Your task to perform on an android device: turn on data saver in the chrome app Image 0: 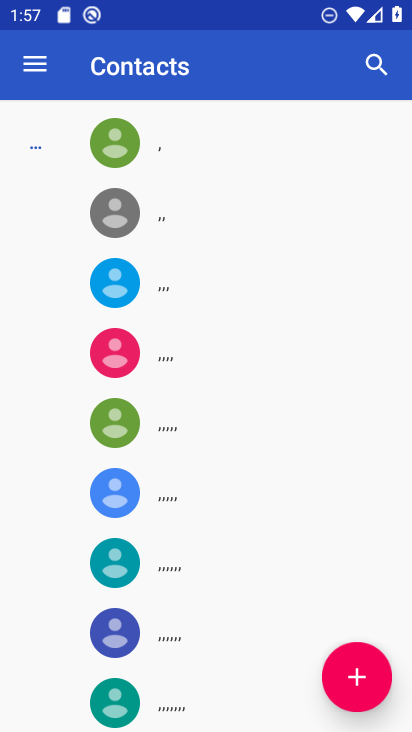
Step 0: press home button
Your task to perform on an android device: turn on data saver in the chrome app Image 1: 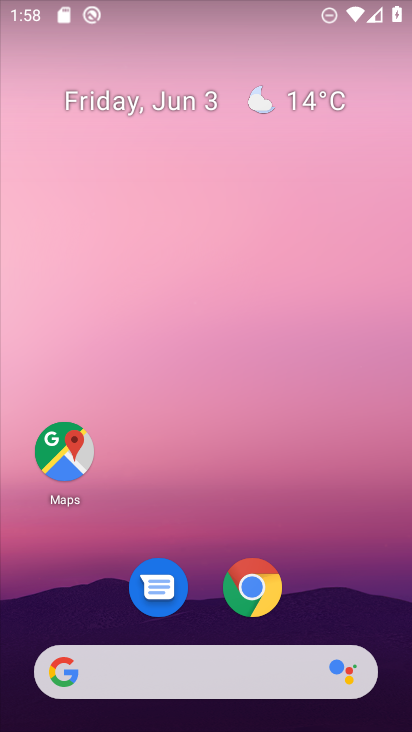
Step 1: click (256, 577)
Your task to perform on an android device: turn on data saver in the chrome app Image 2: 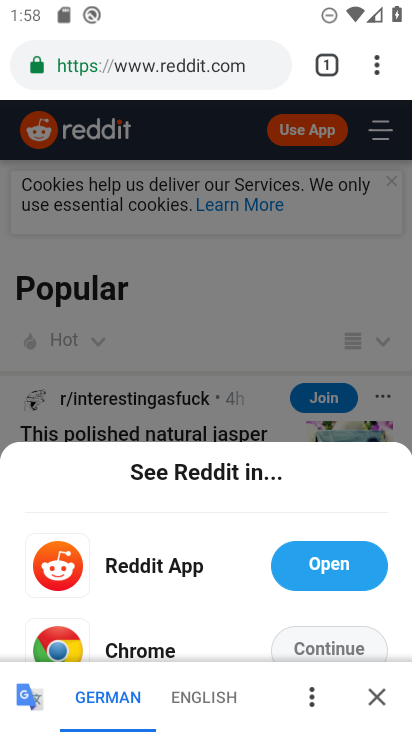
Step 2: click (367, 67)
Your task to perform on an android device: turn on data saver in the chrome app Image 3: 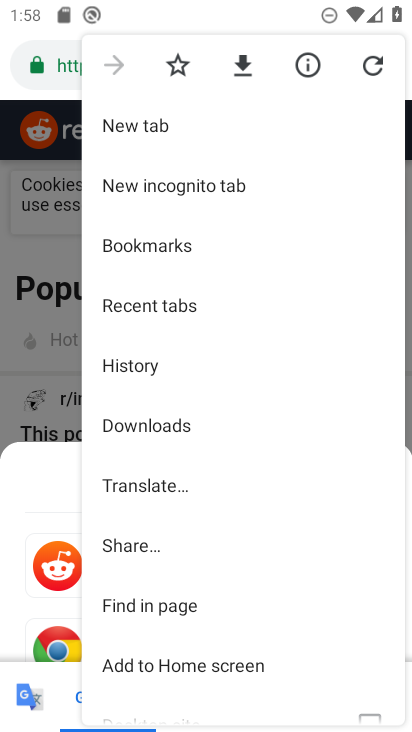
Step 3: drag from (209, 614) to (167, 91)
Your task to perform on an android device: turn on data saver in the chrome app Image 4: 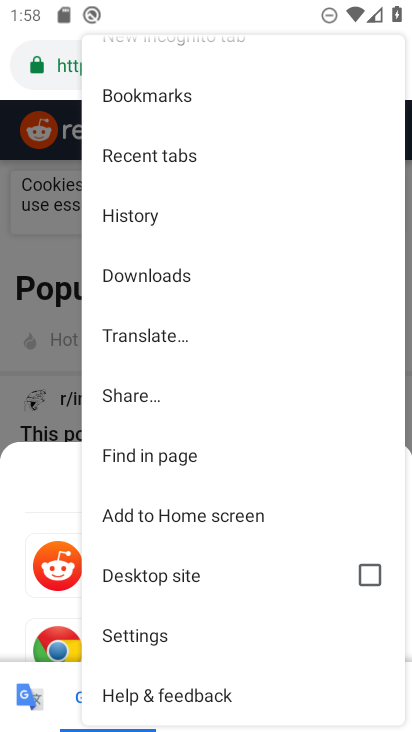
Step 4: click (172, 618)
Your task to perform on an android device: turn on data saver in the chrome app Image 5: 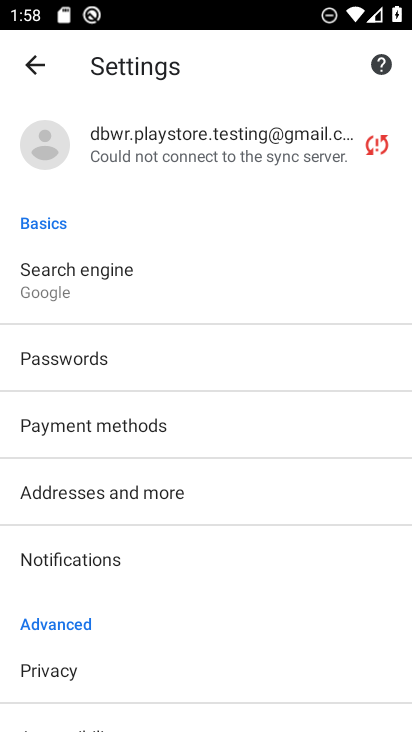
Step 5: drag from (182, 584) to (207, 63)
Your task to perform on an android device: turn on data saver in the chrome app Image 6: 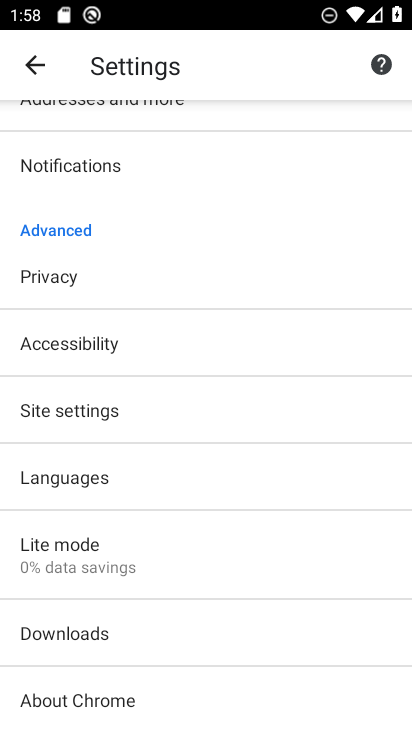
Step 6: click (101, 557)
Your task to perform on an android device: turn on data saver in the chrome app Image 7: 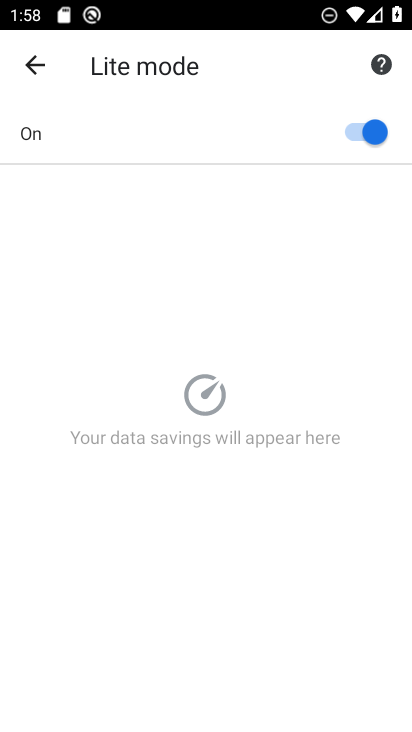
Step 7: task complete